Your task to perform on an android device: add a contact in the contacts app Image 0: 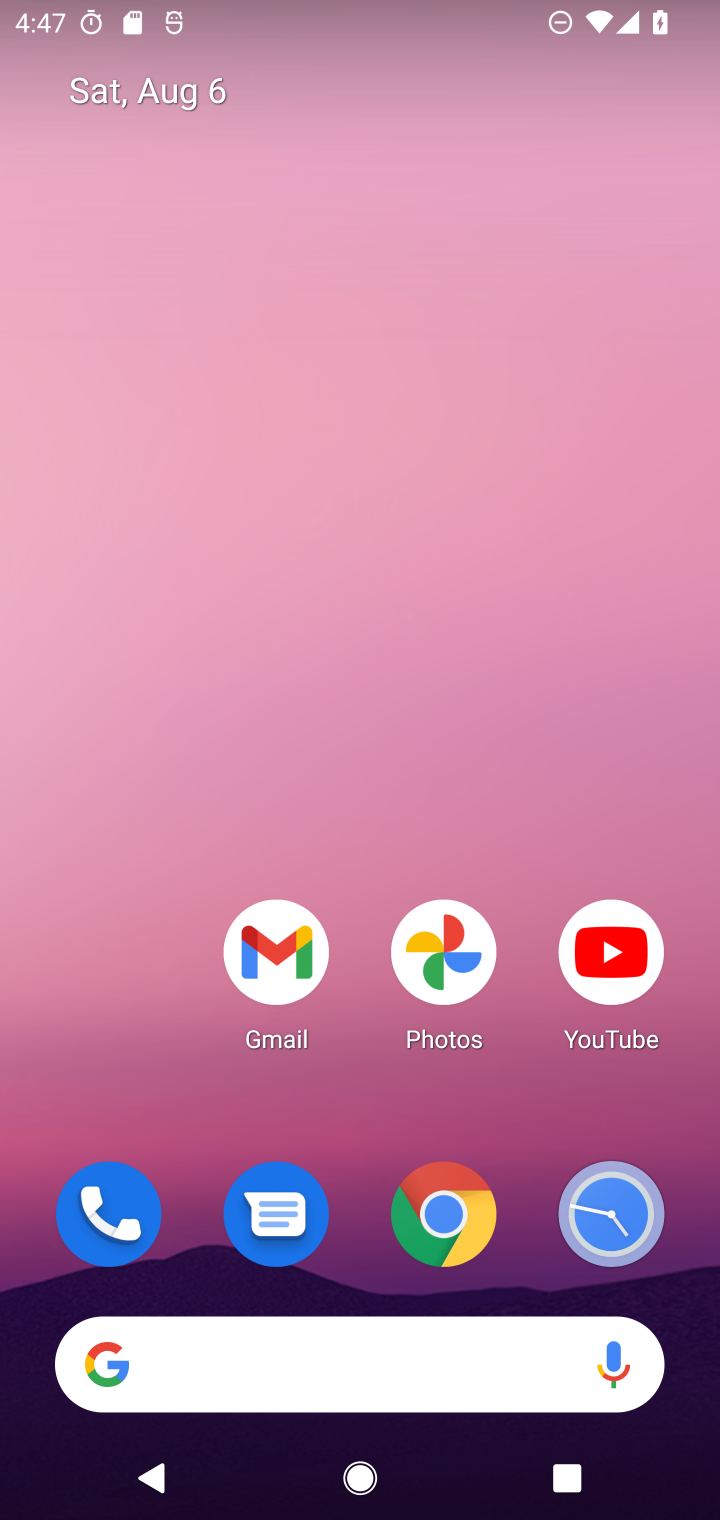
Step 0: drag from (319, 1187) to (328, 322)
Your task to perform on an android device: add a contact in the contacts app Image 1: 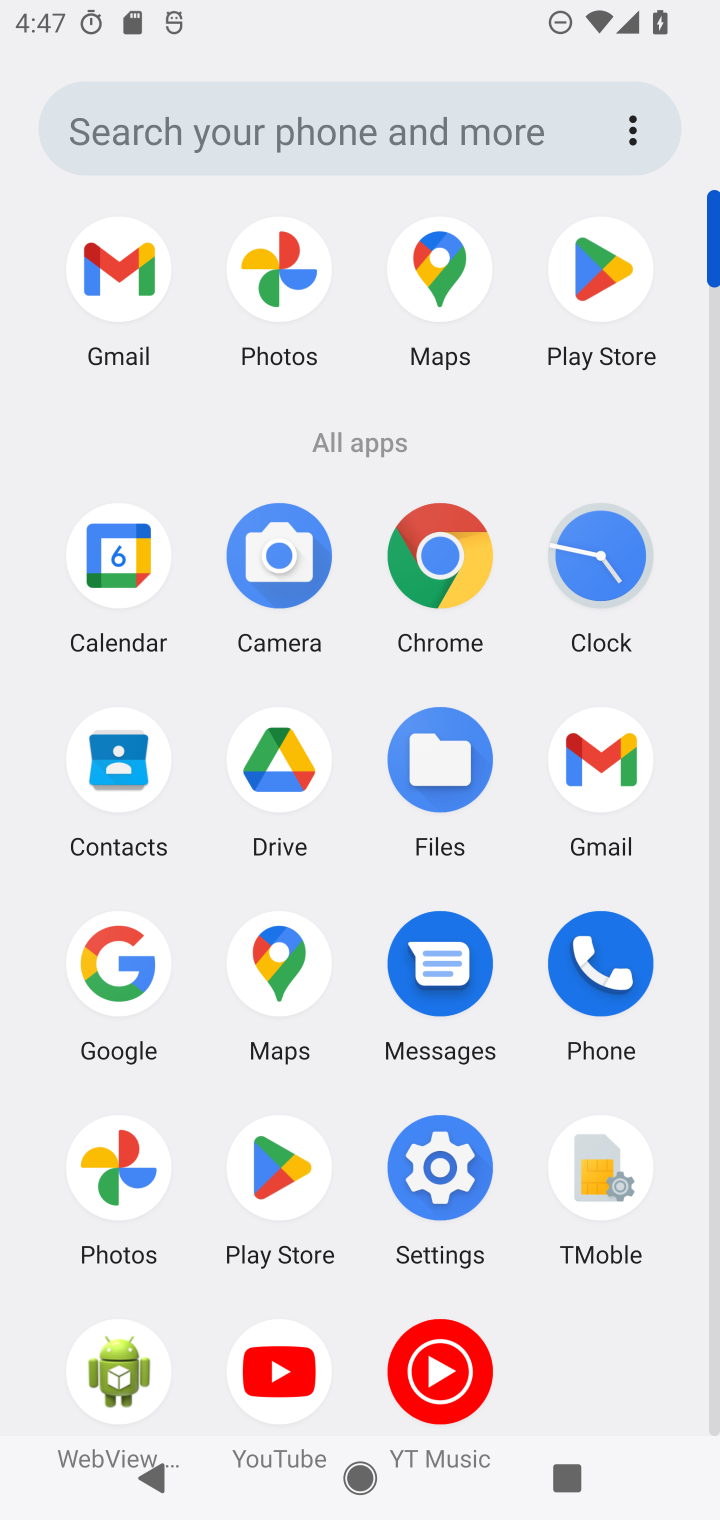
Step 1: drag from (478, 1129) to (478, 615)
Your task to perform on an android device: add a contact in the contacts app Image 2: 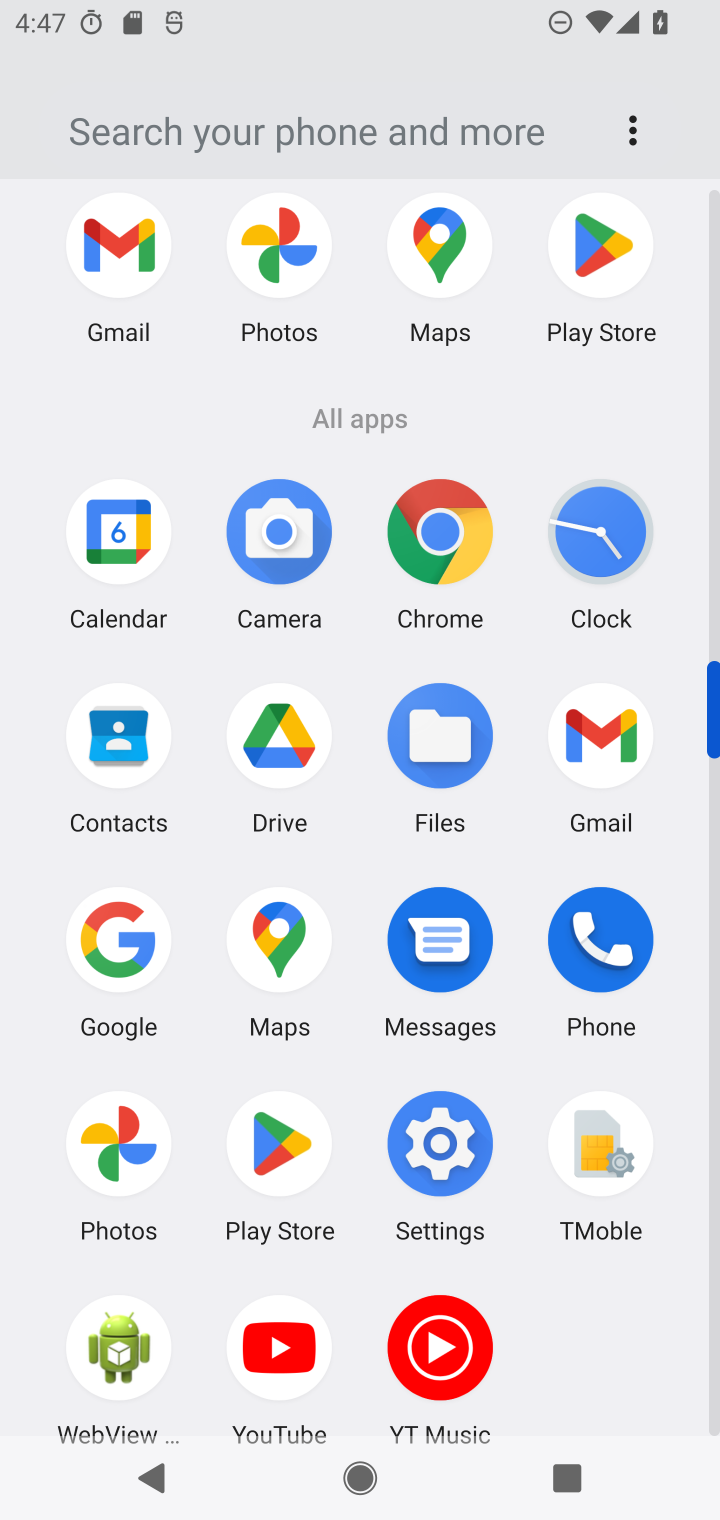
Step 2: click (124, 751)
Your task to perform on an android device: add a contact in the contacts app Image 3: 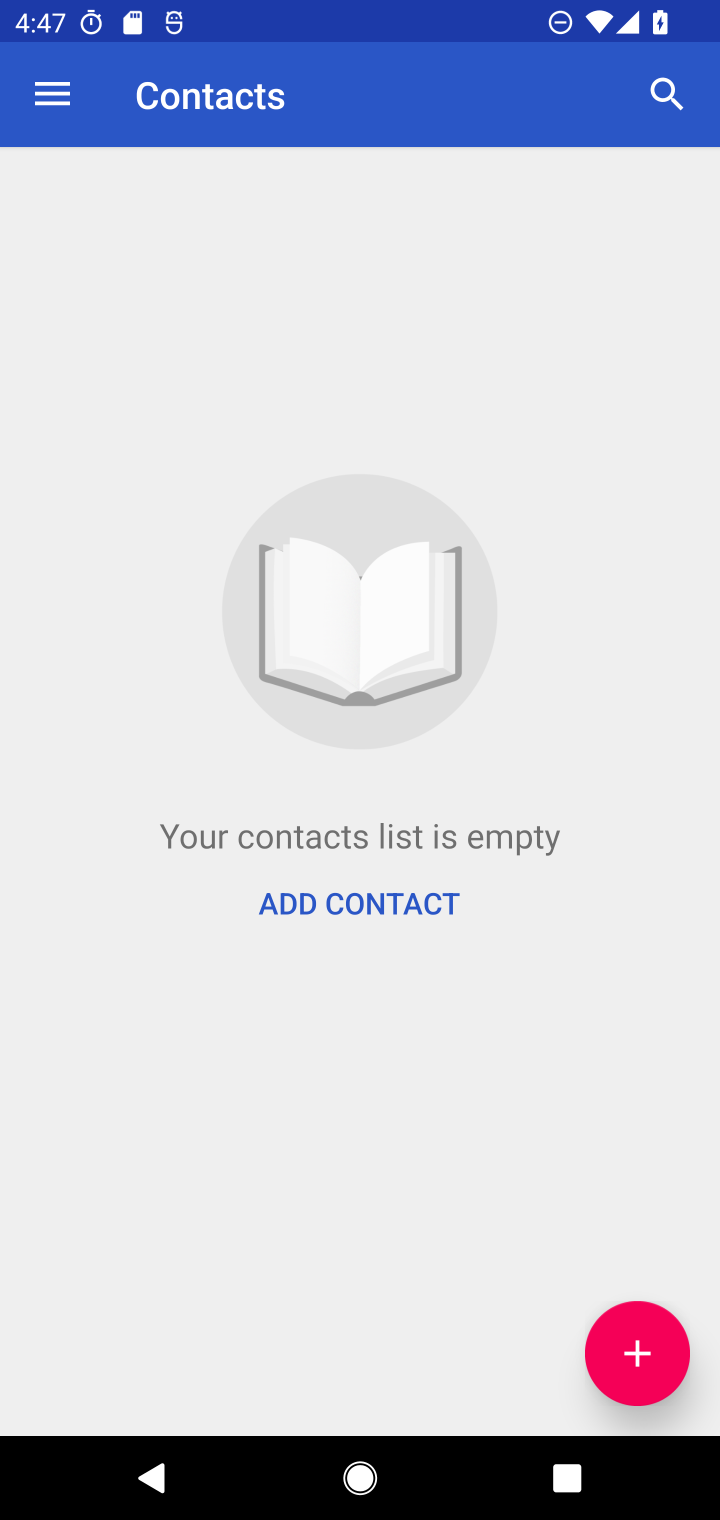
Step 3: click (640, 1391)
Your task to perform on an android device: add a contact in the contacts app Image 4: 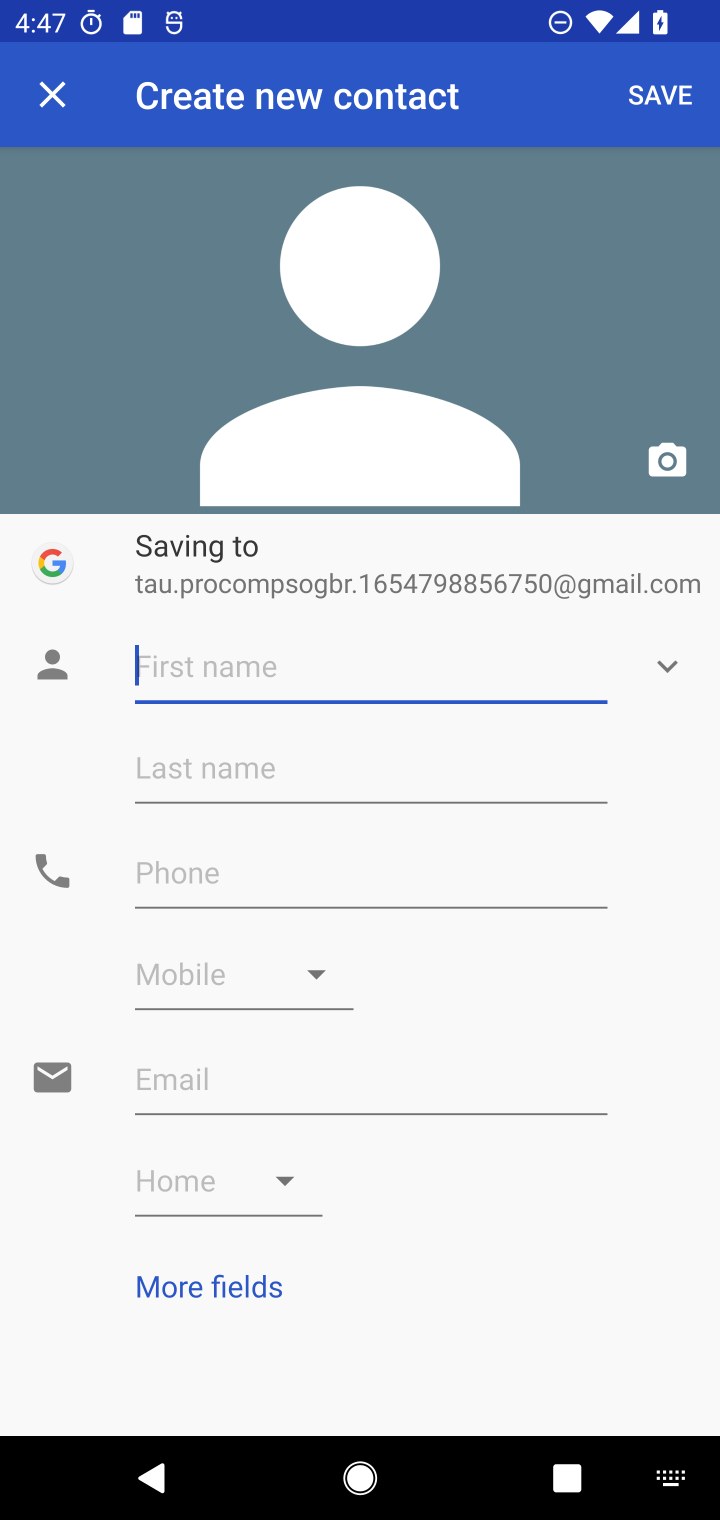
Step 4: type "Nupur"
Your task to perform on an android device: add a contact in the contacts app Image 5: 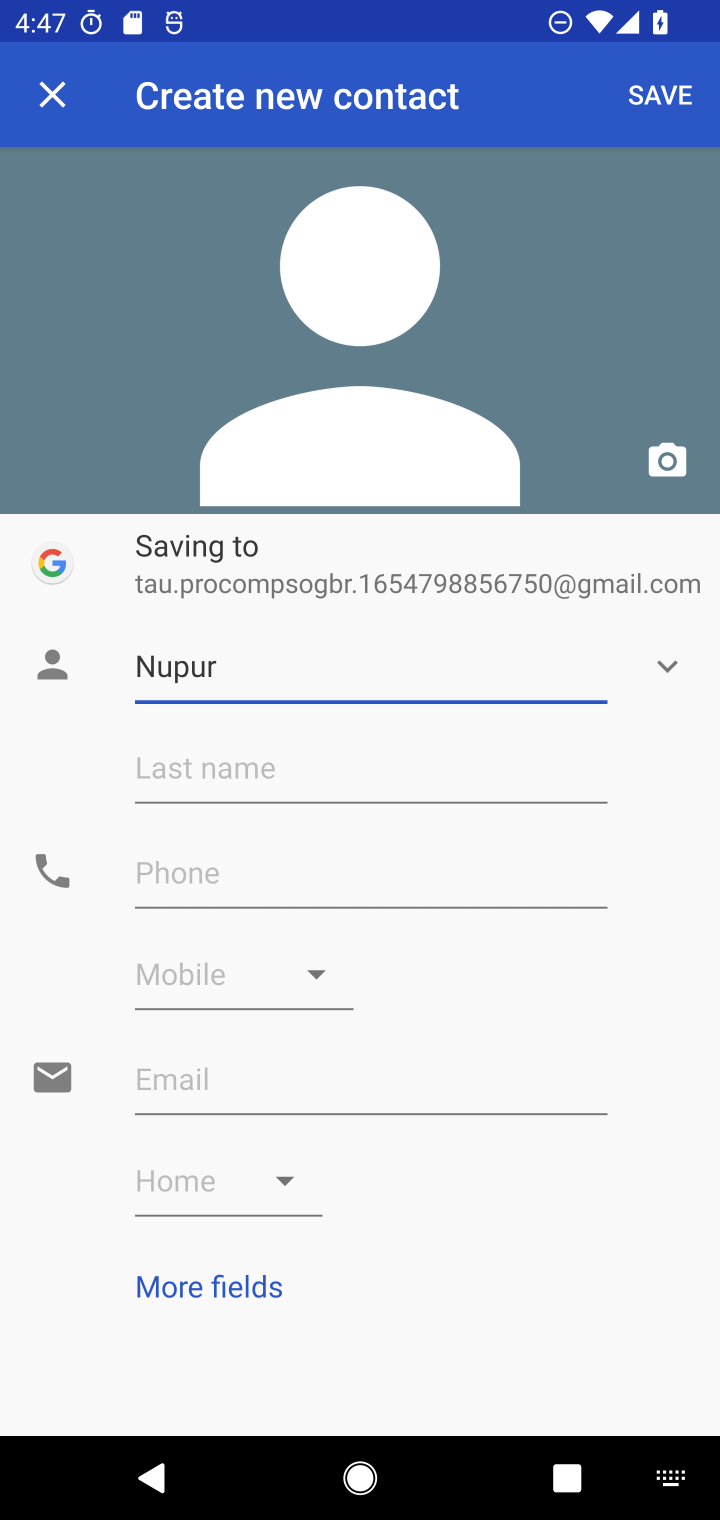
Step 5: click (354, 764)
Your task to perform on an android device: add a contact in the contacts app Image 6: 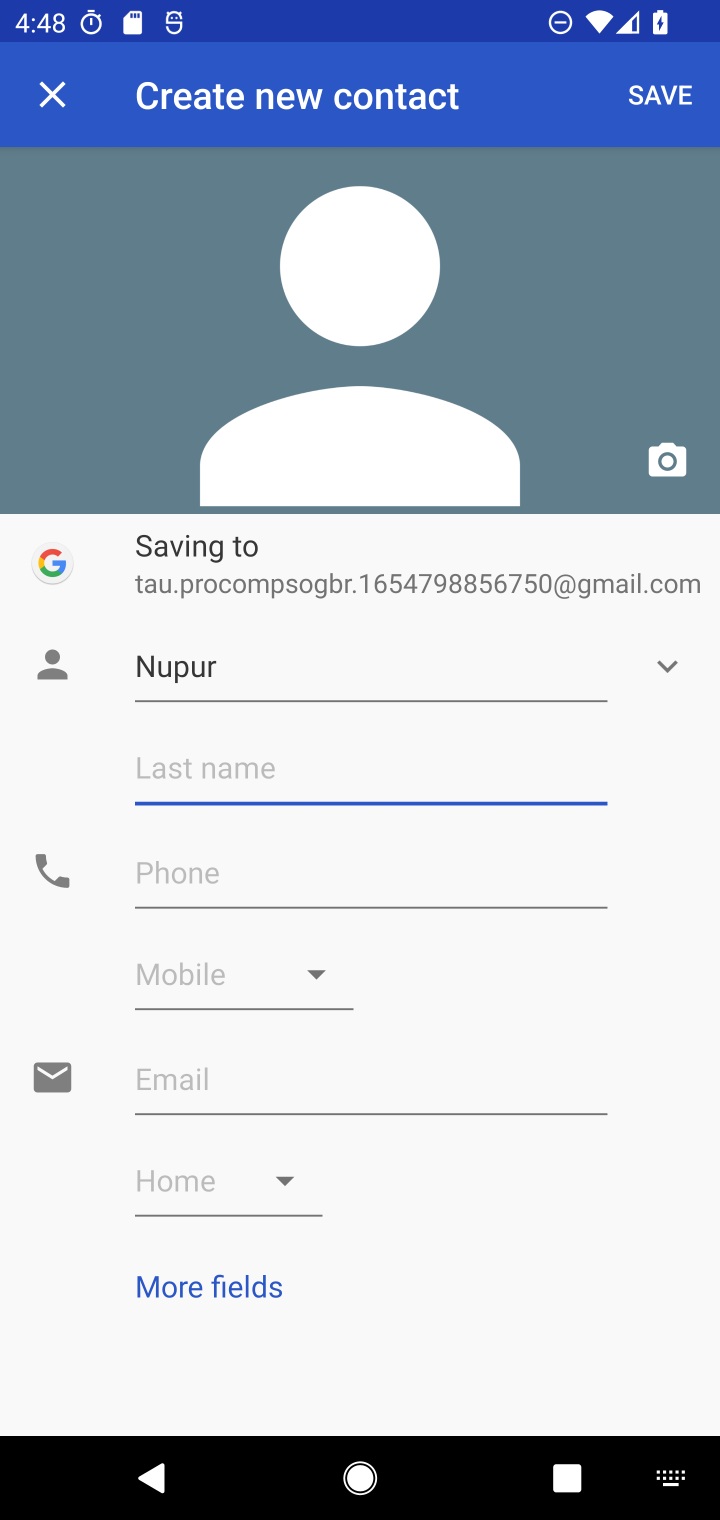
Step 6: type "niti"
Your task to perform on an android device: add a contact in the contacts app Image 7: 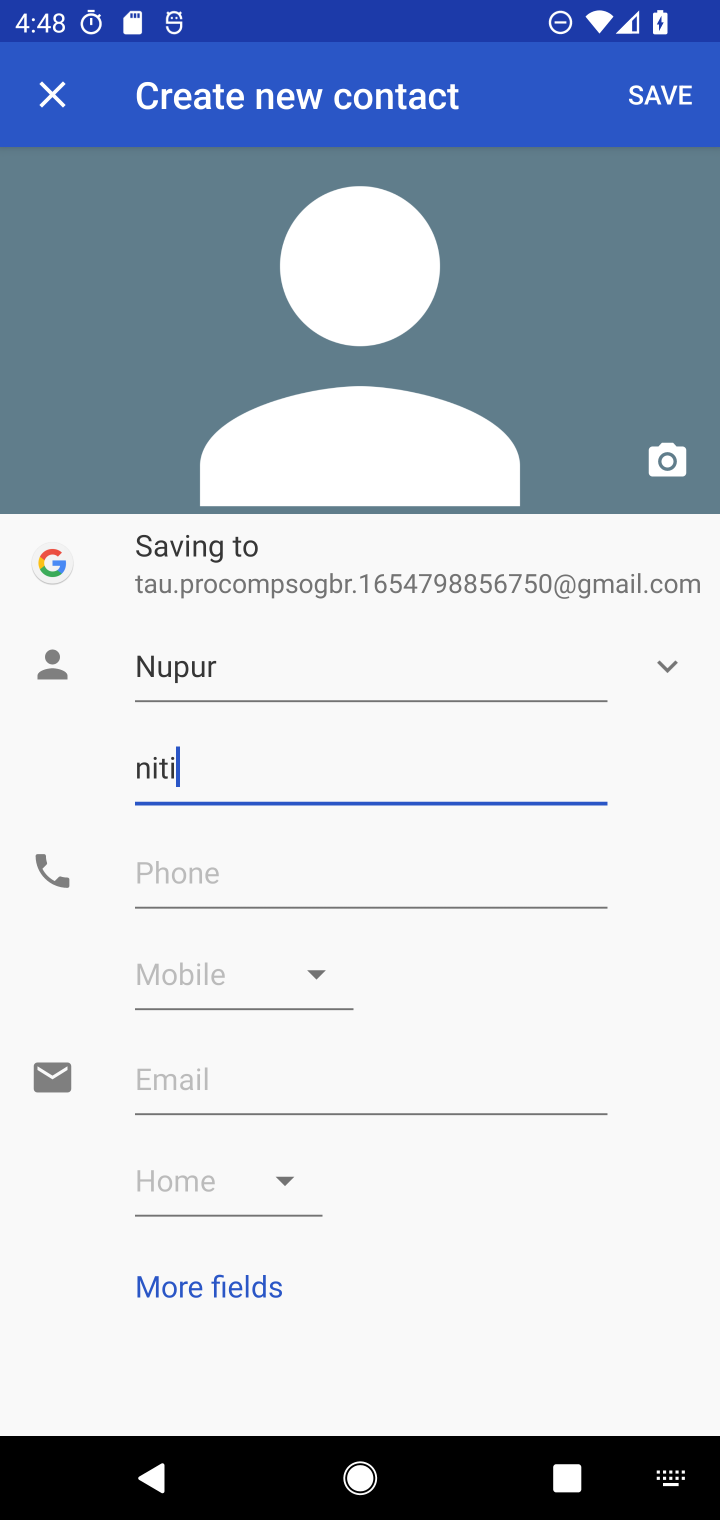
Step 7: click (469, 879)
Your task to perform on an android device: add a contact in the contacts app Image 8: 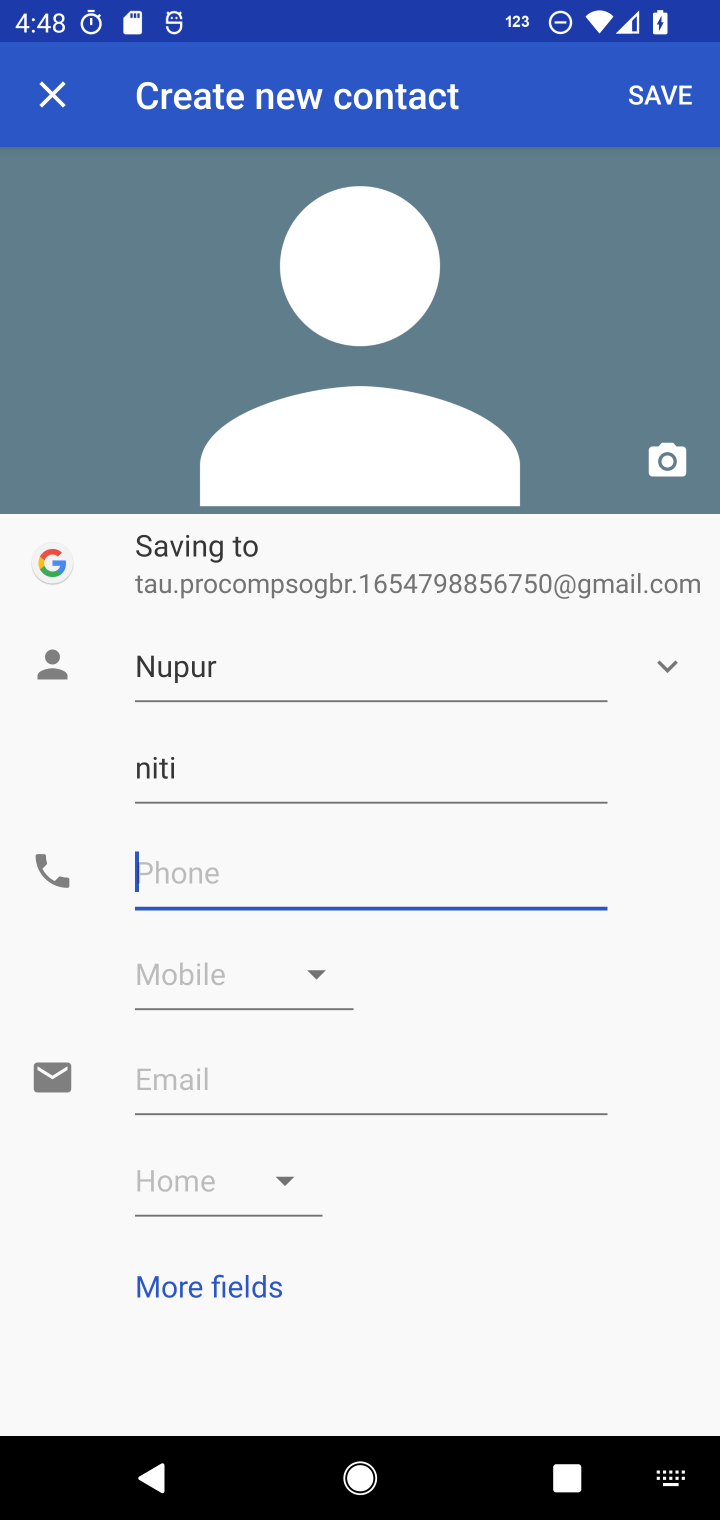
Step 8: type "8900988989"
Your task to perform on an android device: add a contact in the contacts app Image 9: 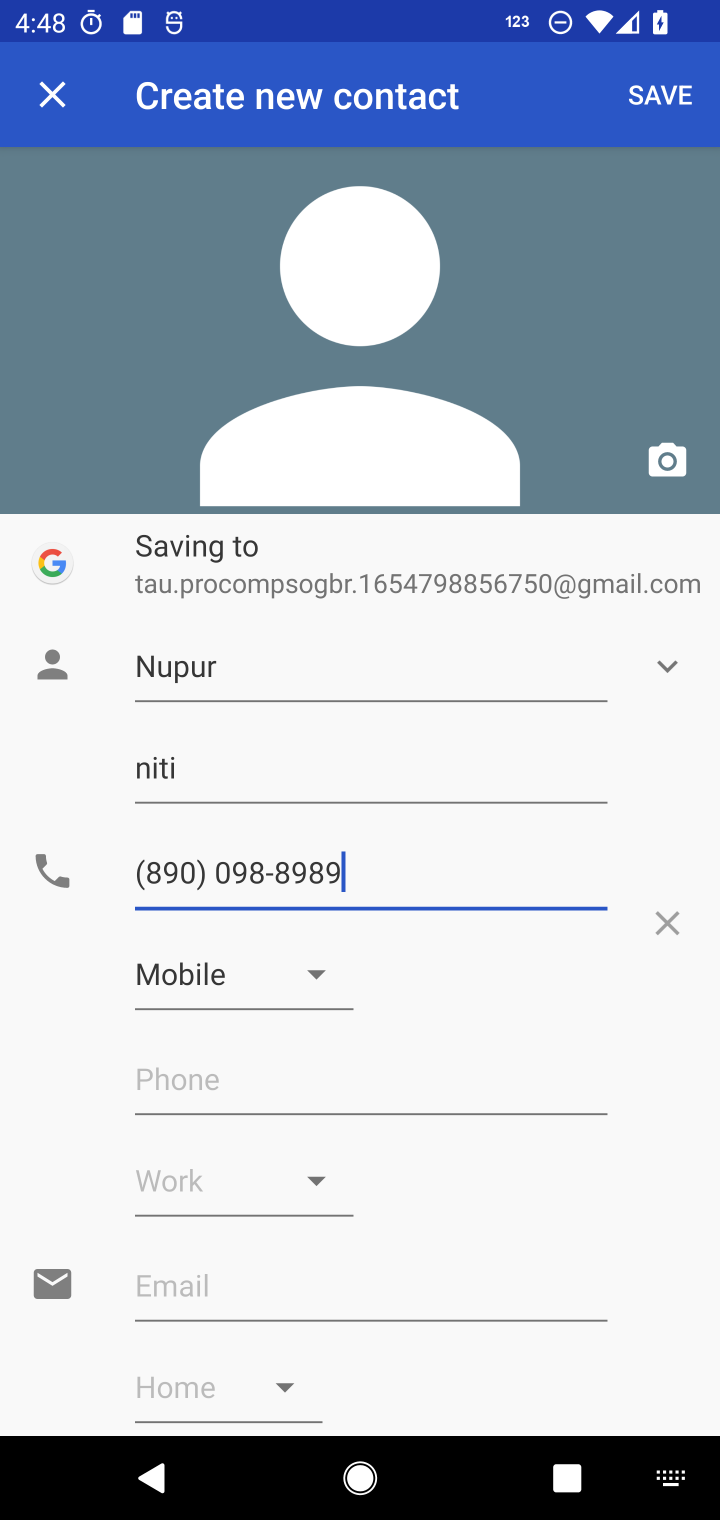
Step 9: click (670, 85)
Your task to perform on an android device: add a contact in the contacts app Image 10: 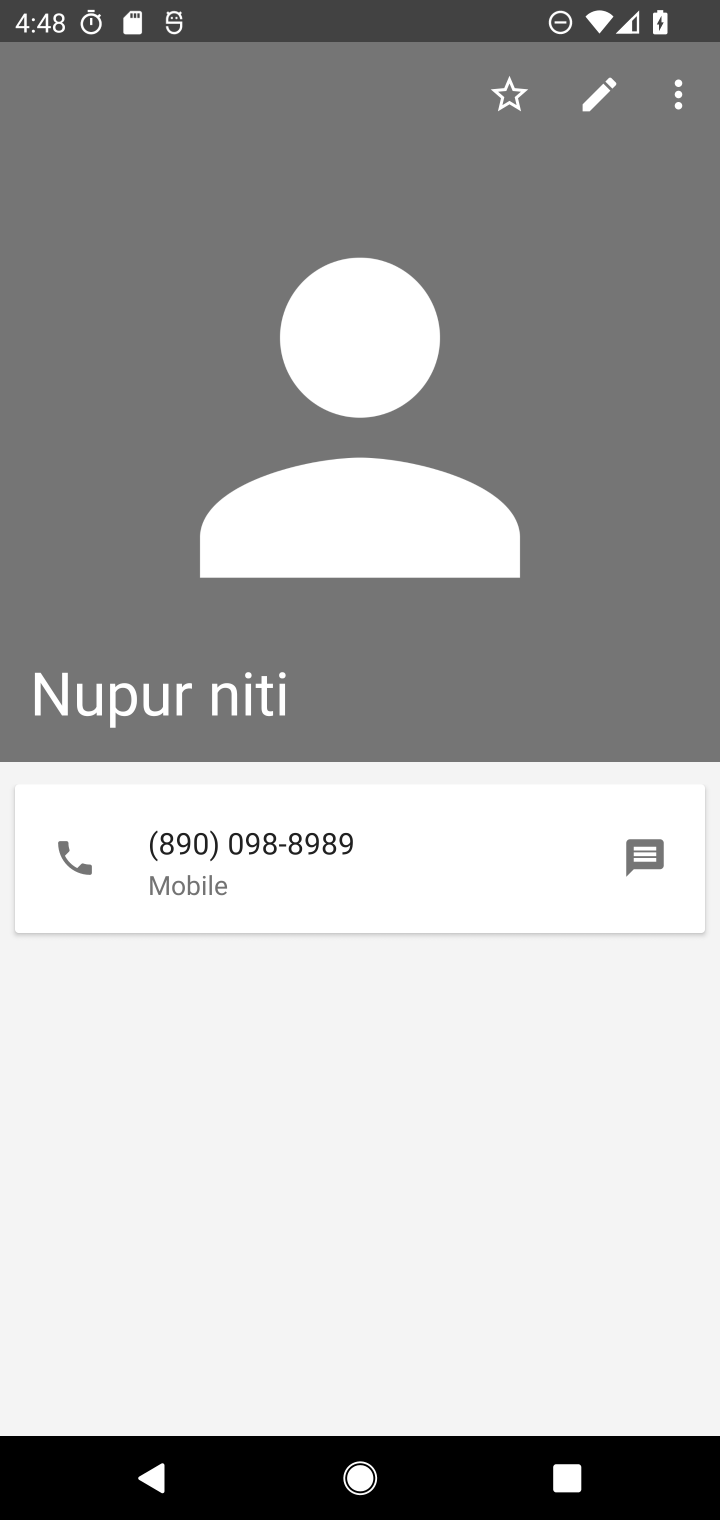
Step 10: task complete